Your task to perform on an android device: See recent photos Image 0: 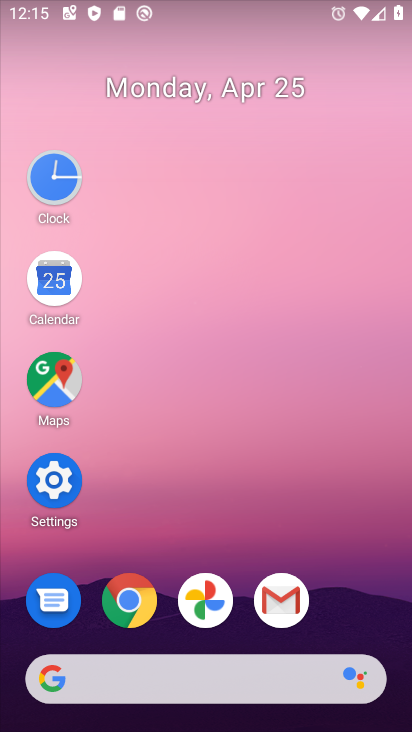
Step 0: click (203, 588)
Your task to perform on an android device: See recent photos Image 1: 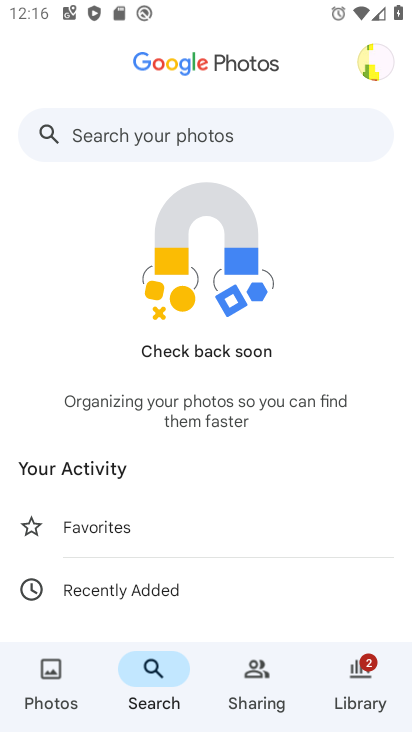
Step 1: click (48, 673)
Your task to perform on an android device: See recent photos Image 2: 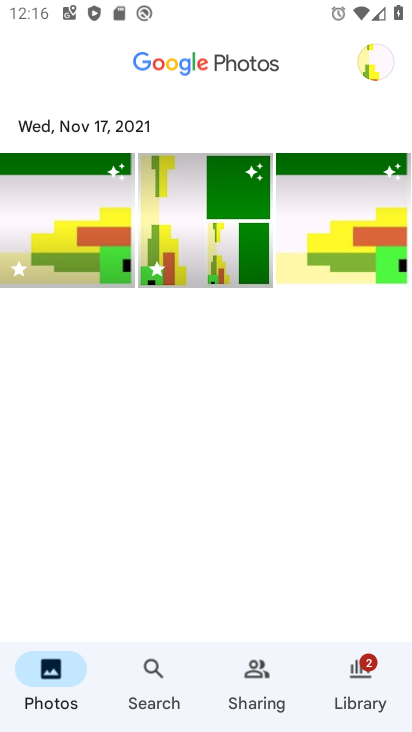
Step 2: click (44, 689)
Your task to perform on an android device: See recent photos Image 3: 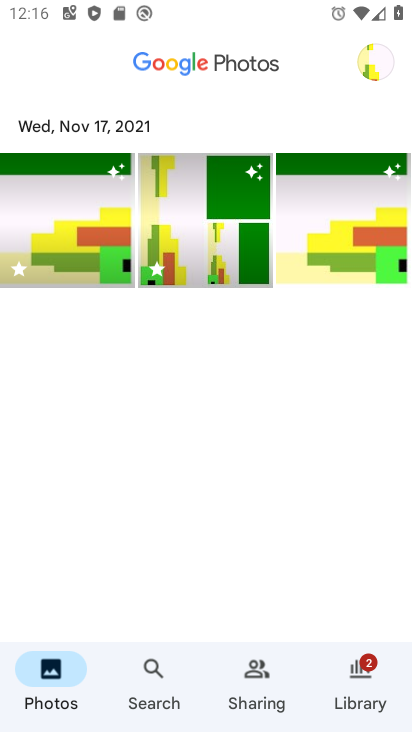
Step 3: task complete